Your task to perform on an android device: Go to Reddit.com Image 0: 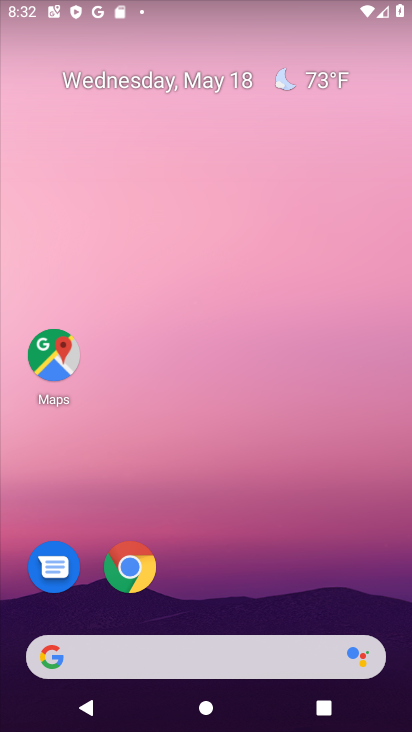
Step 0: drag from (279, 545) to (224, 55)
Your task to perform on an android device: Go to Reddit.com Image 1: 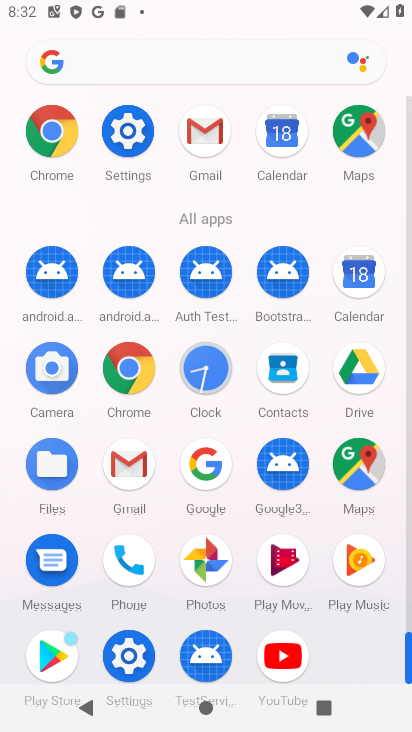
Step 1: click (130, 366)
Your task to perform on an android device: Go to Reddit.com Image 2: 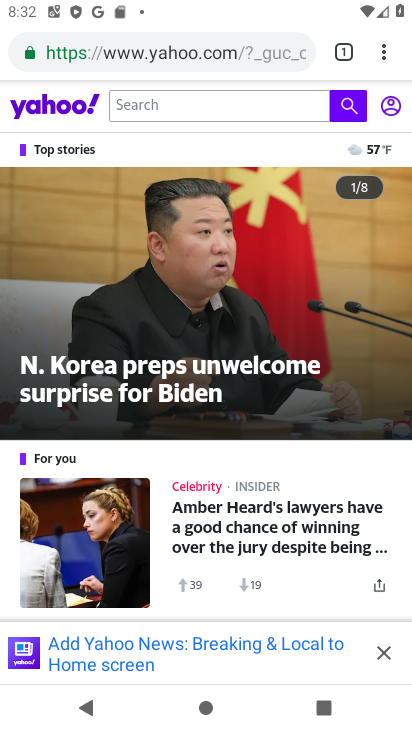
Step 2: click (172, 55)
Your task to perform on an android device: Go to Reddit.com Image 3: 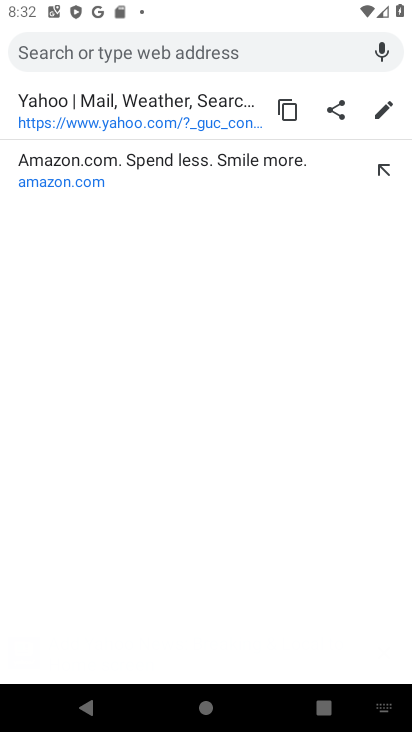
Step 3: type "Reddit.com"
Your task to perform on an android device: Go to Reddit.com Image 4: 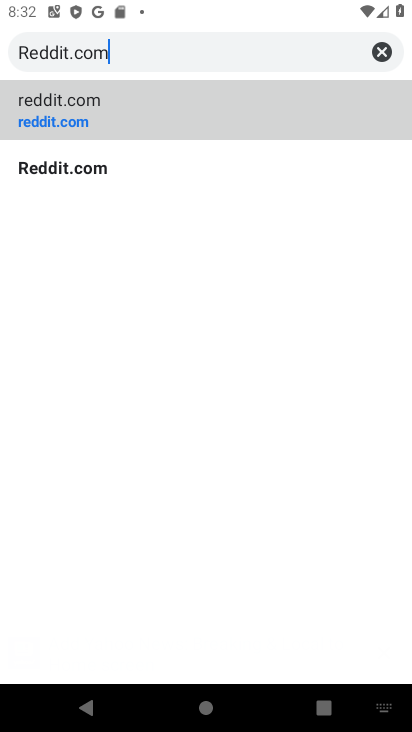
Step 4: type ""
Your task to perform on an android device: Go to Reddit.com Image 5: 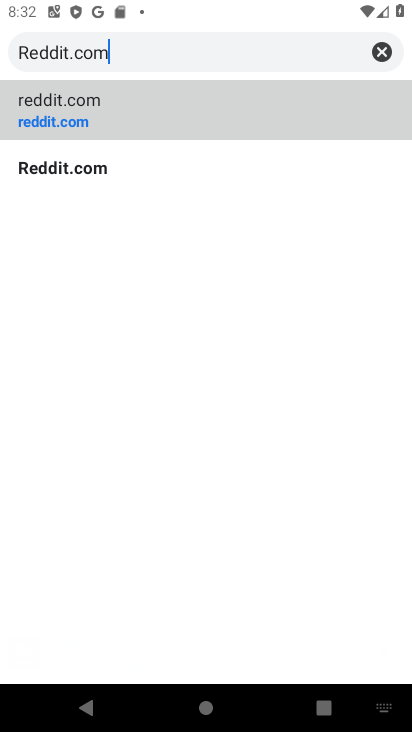
Step 5: click (133, 117)
Your task to perform on an android device: Go to Reddit.com Image 6: 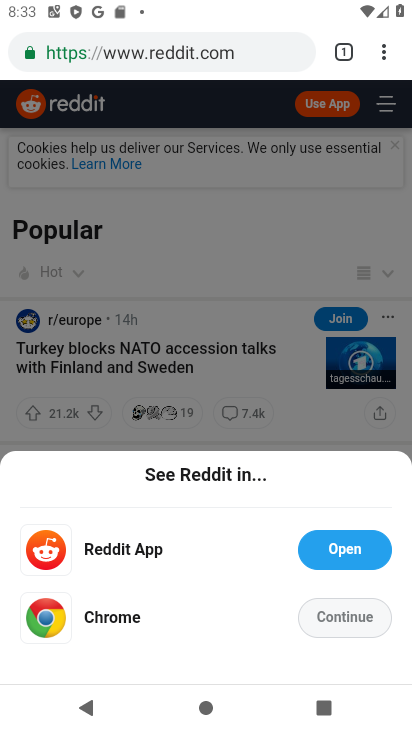
Step 6: task complete